Your task to perform on an android device: Show me the alarms in the clock app Image 0: 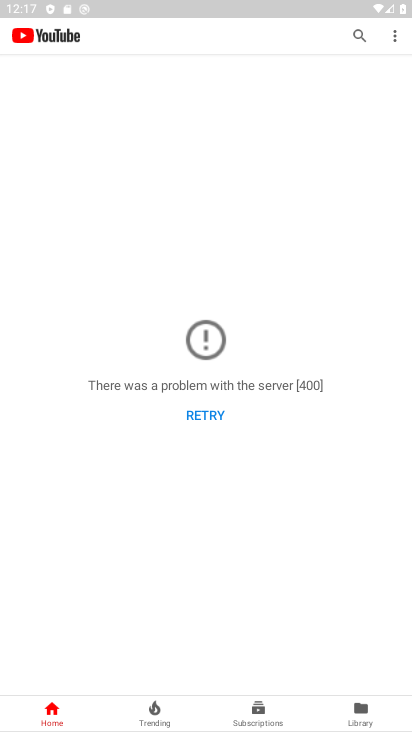
Step 0: press home button
Your task to perform on an android device: Show me the alarms in the clock app Image 1: 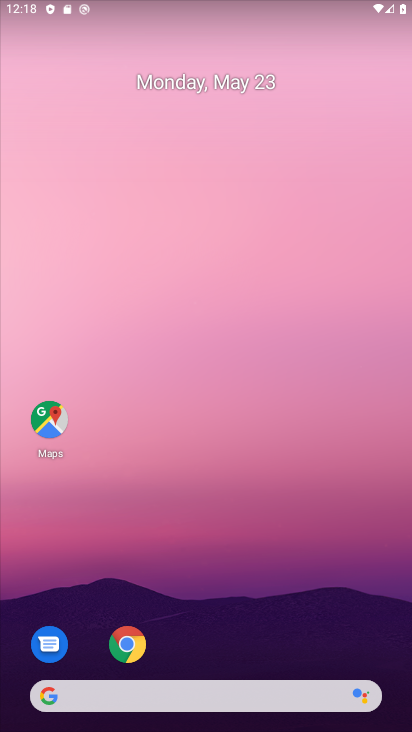
Step 1: drag from (279, 664) to (375, 172)
Your task to perform on an android device: Show me the alarms in the clock app Image 2: 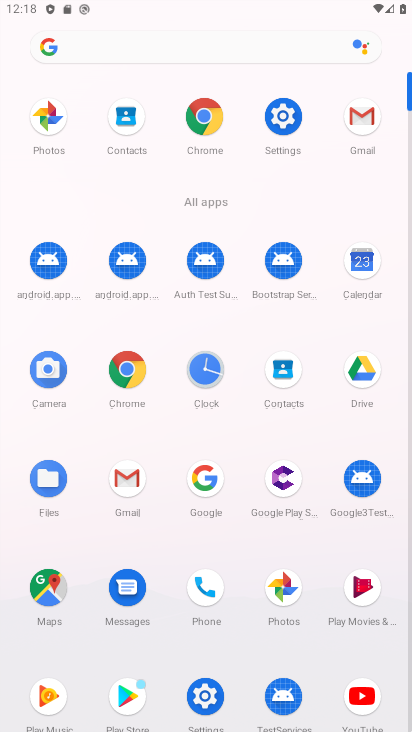
Step 2: click (209, 373)
Your task to perform on an android device: Show me the alarms in the clock app Image 3: 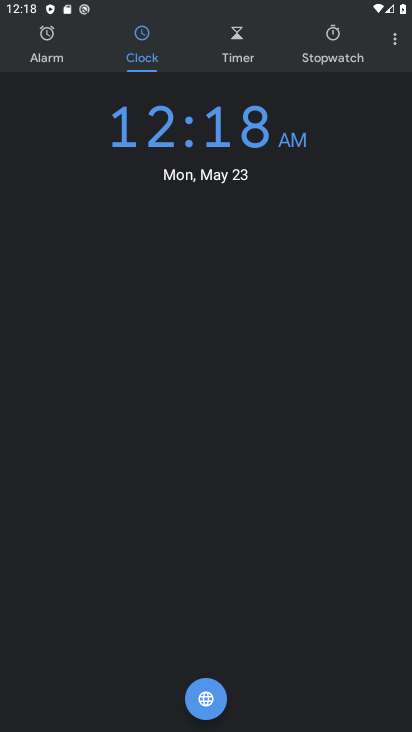
Step 3: click (47, 52)
Your task to perform on an android device: Show me the alarms in the clock app Image 4: 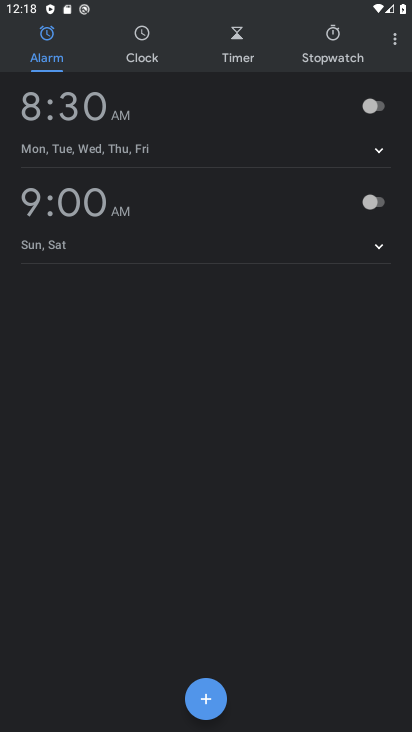
Step 4: task complete